Your task to perform on an android device: Open the web browser Image 0: 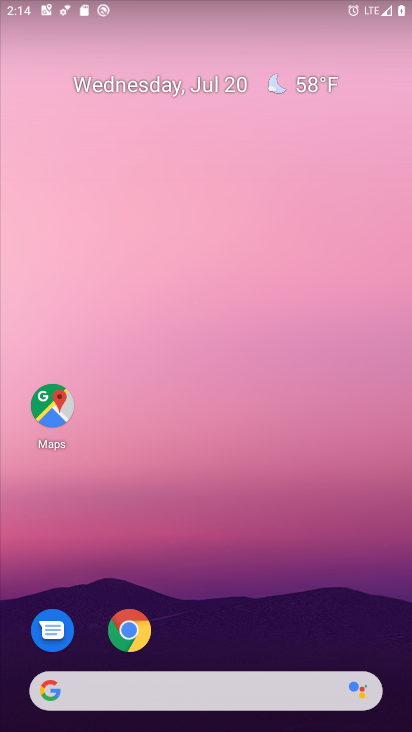
Step 0: drag from (214, 679) to (373, 239)
Your task to perform on an android device: Open the web browser Image 1: 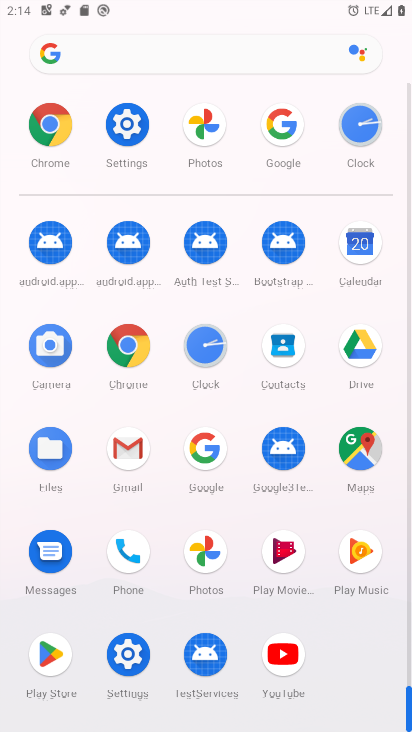
Step 1: click (61, 147)
Your task to perform on an android device: Open the web browser Image 2: 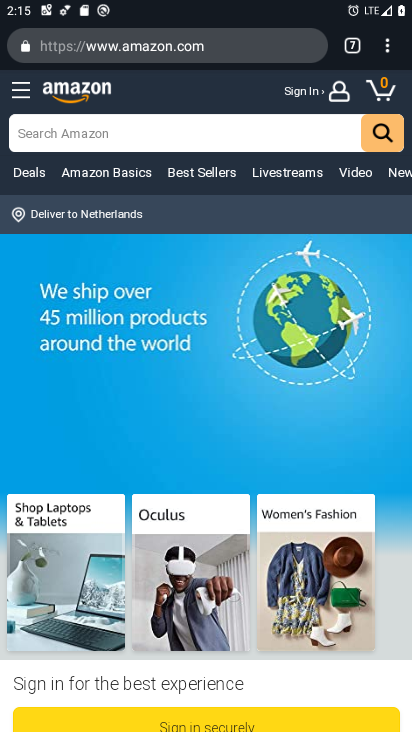
Step 2: task complete